Your task to perform on an android device: change text size in settings app Image 0: 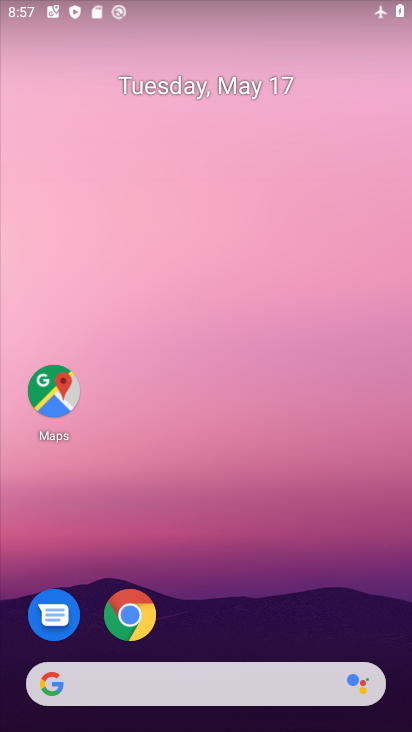
Step 0: drag from (242, 627) to (309, 118)
Your task to perform on an android device: change text size in settings app Image 1: 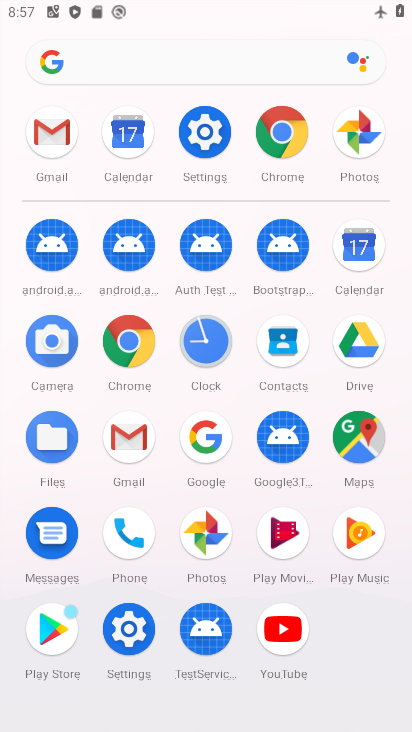
Step 1: click (282, 129)
Your task to perform on an android device: change text size in settings app Image 2: 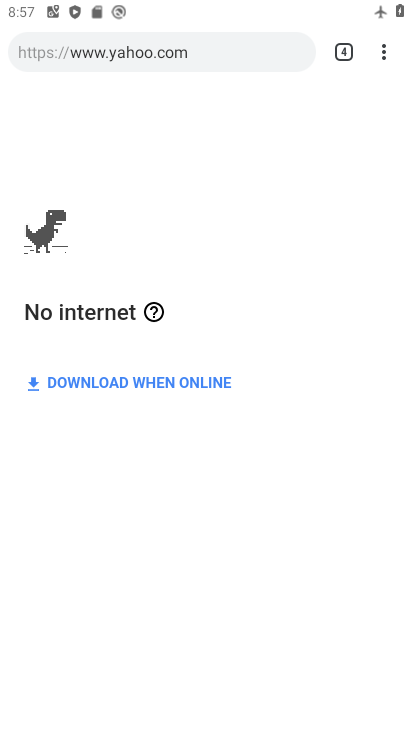
Step 2: click (372, 46)
Your task to perform on an android device: change text size in settings app Image 3: 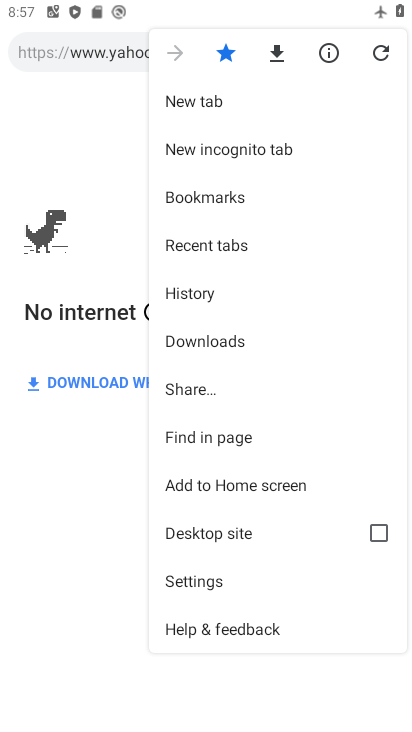
Step 3: click (247, 579)
Your task to perform on an android device: change text size in settings app Image 4: 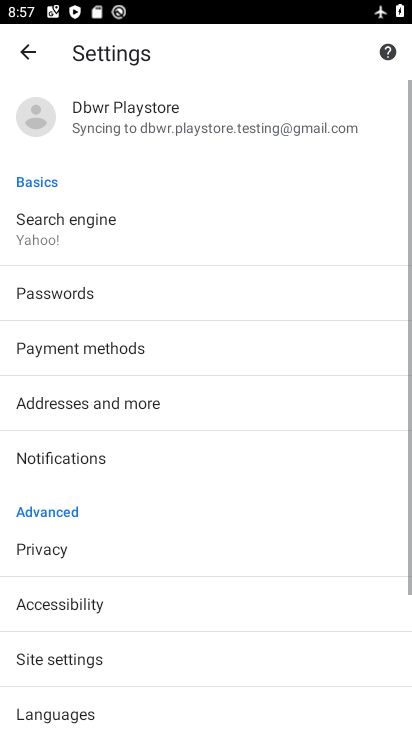
Step 4: drag from (215, 576) to (307, 262)
Your task to perform on an android device: change text size in settings app Image 5: 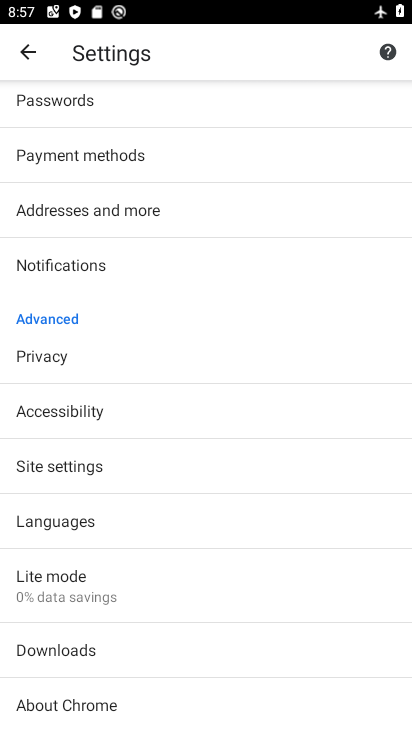
Step 5: drag from (151, 642) to (252, 273)
Your task to perform on an android device: change text size in settings app Image 6: 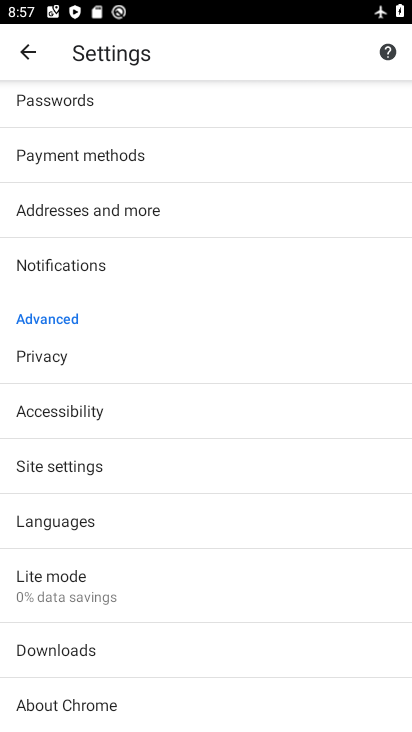
Step 6: drag from (231, 560) to (294, 161)
Your task to perform on an android device: change text size in settings app Image 7: 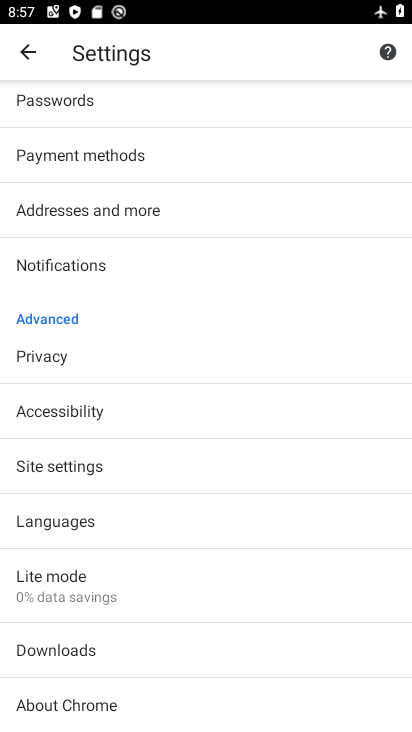
Step 7: drag from (200, 610) to (247, 254)
Your task to perform on an android device: change text size in settings app Image 8: 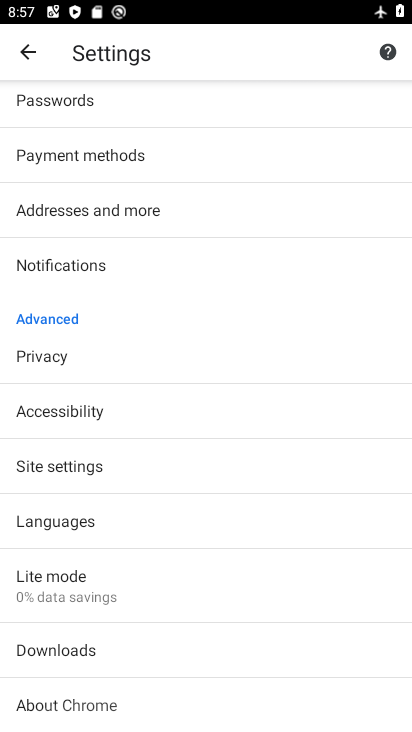
Step 8: drag from (256, 572) to (275, 247)
Your task to perform on an android device: change text size in settings app Image 9: 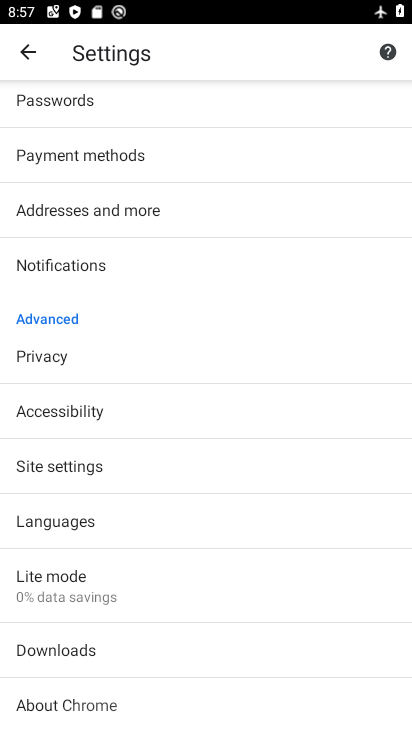
Step 9: drag from (152, 623) to (172, 57)
Your task to perform on an android device: change text size in settings app Image 10: 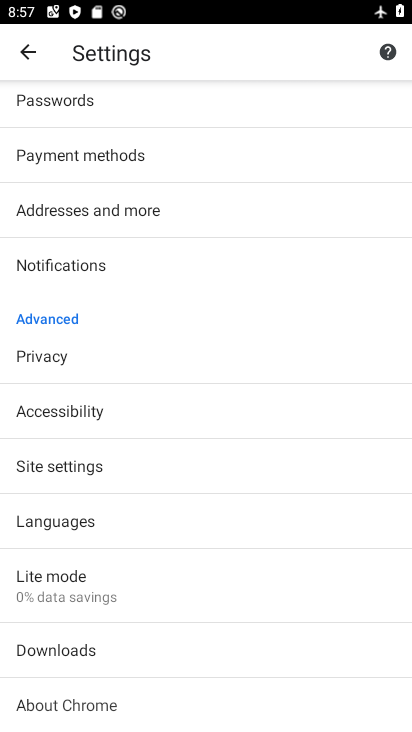
Step 10: drag from (228, 376) to (241, 222)
Your task to perform on an android device: change text size in settings app Image 11: 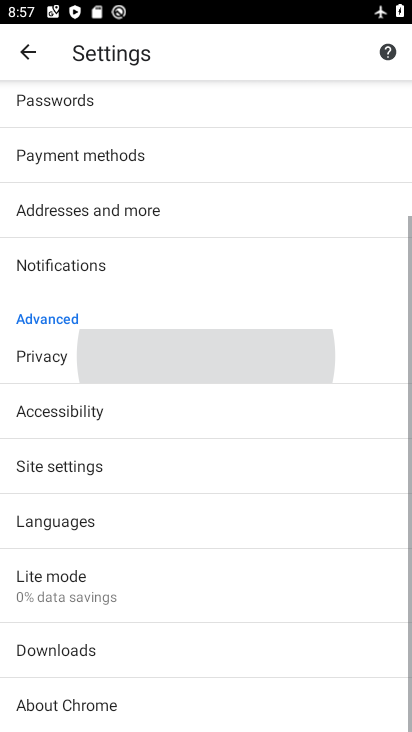
Step 11: drag from (234, 250) to (208, 518)
Your task to perform on an android device: change text size in settings app Image 12: 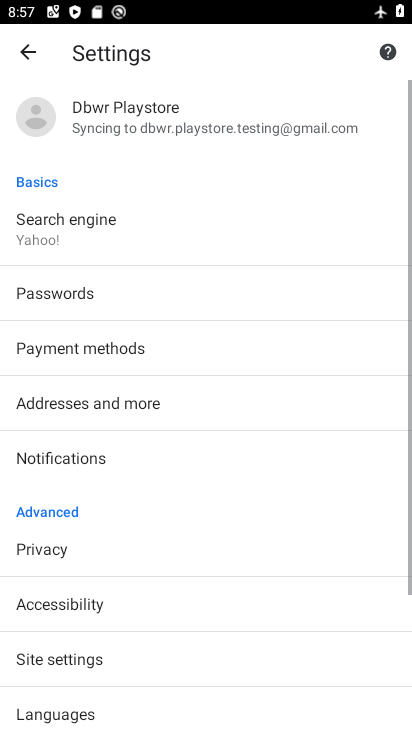
Step 12: click (211, 437)
Your task to perform on an android device: change text size in settings app Image 13: 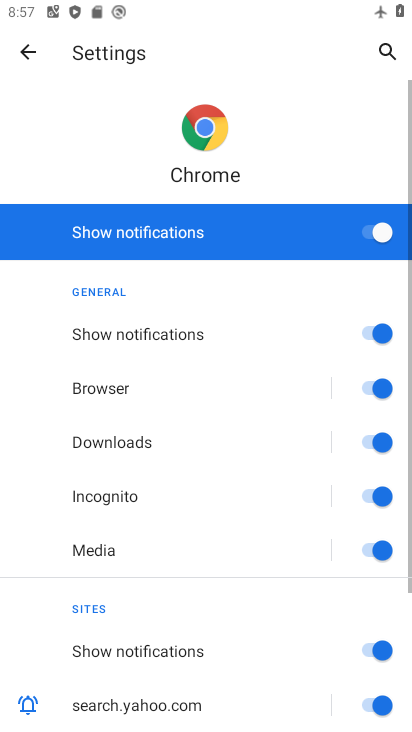
Step 13: click (21, 40)
Your task to perform on an android device: change text size in settings app Image 14: 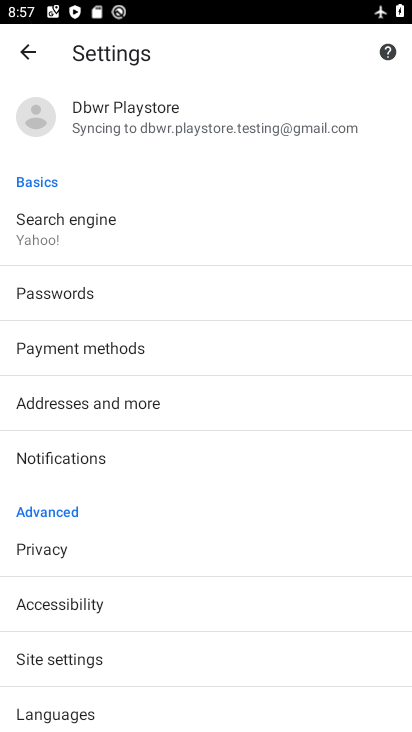
Step 14: drag from (141, 671) to (173, 590)
Your task to perform on an android device: change text size in settings app Image 15: 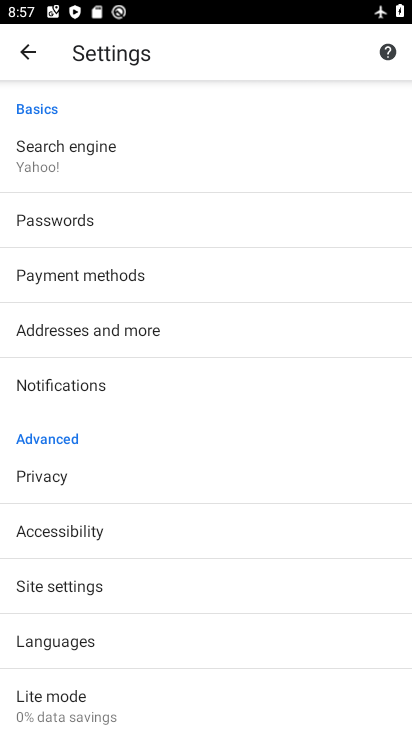
Step 15: click (155, 518)
Your task to perform on an android device: change text size in settings app Image 16: 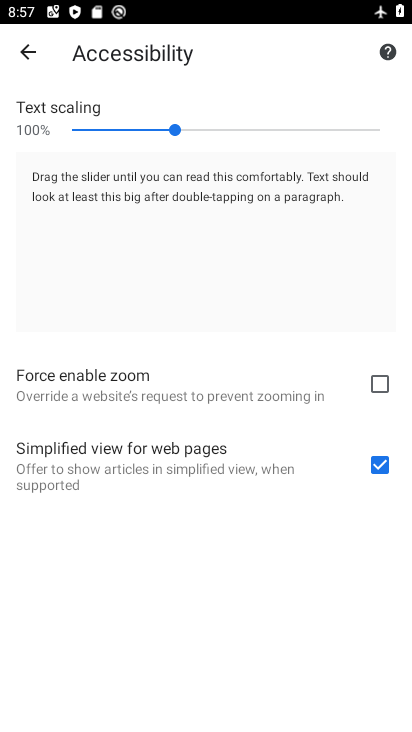
Step 16: click (33, 38)
Your task to perform on an android device: change text size in settings app Image 17: 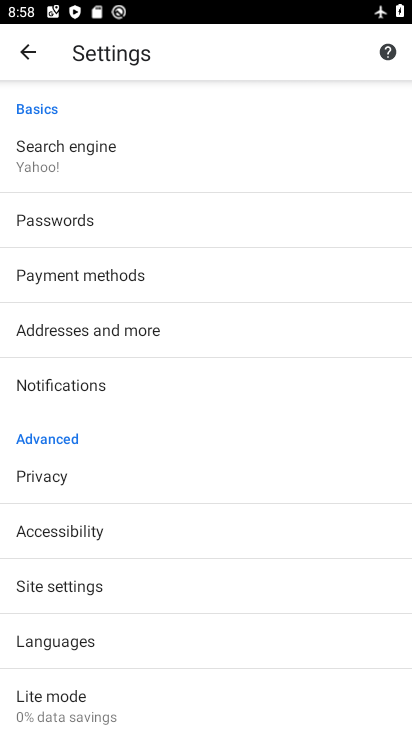
Step 17: drag from (134, 685) to (231, 154)
Your task to perform on an android device: change text size in settings app Image 18: 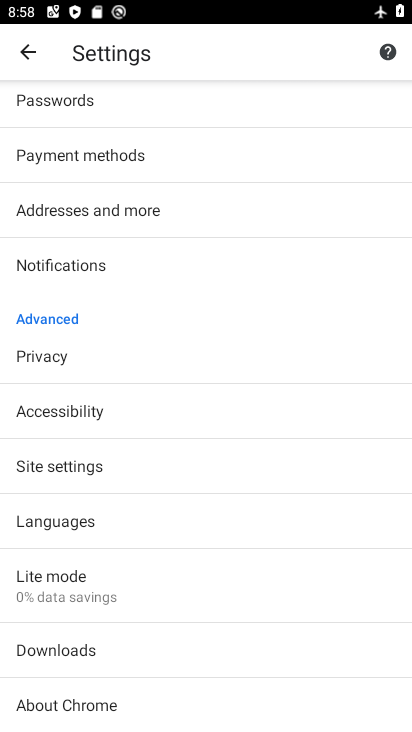
Step 18: click (126, 464)
Your task to perform on an android device: change text size in settings app Image 19: 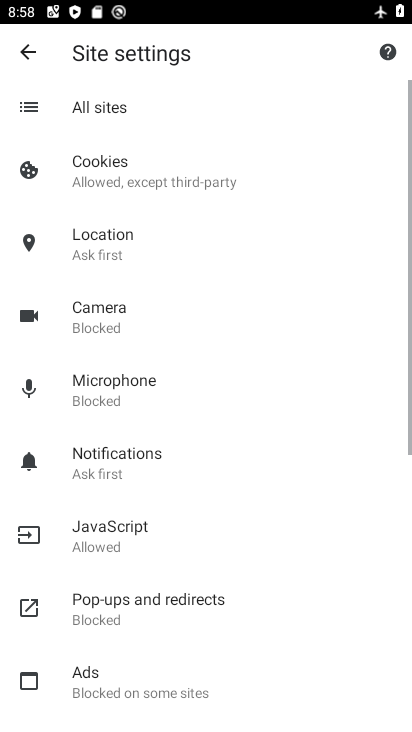
Step 19: click (37, 39)
Your task to perform on an android device: change text size in settings app Image 20: 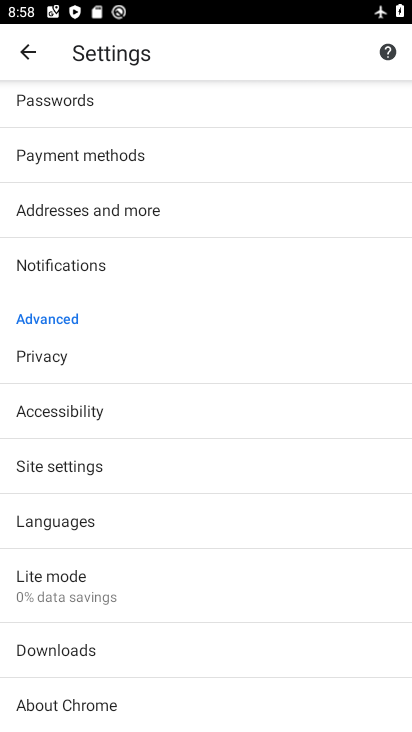
Step 20: drag from (181, 544) to (287, 204)
Your task to perform on an android device: change text size in settings app Image 21: 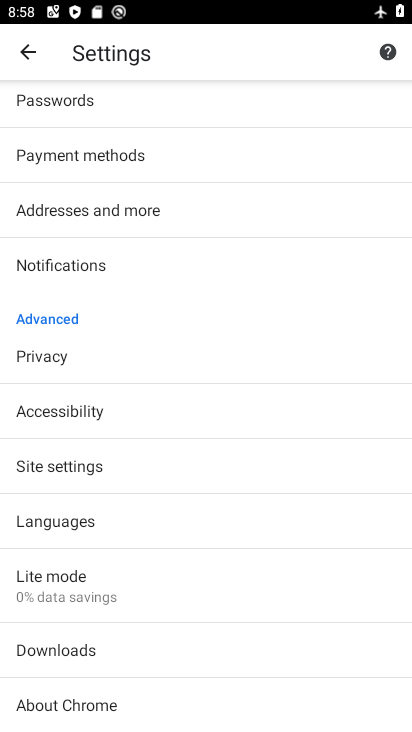
Step 21: click (122, 357)
Your task to perform on an android device: change text size in settings app Image 22: 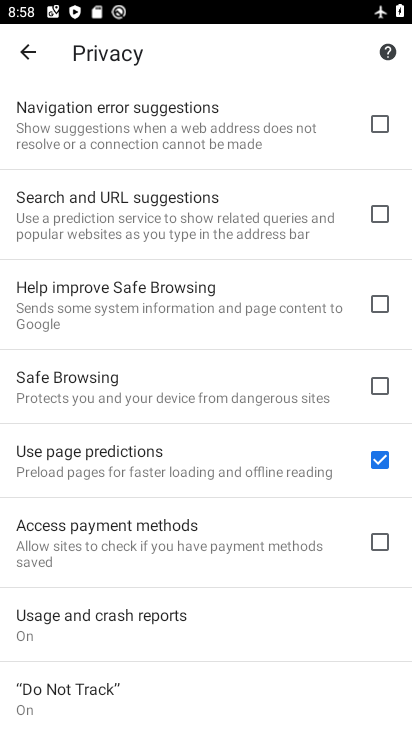
Step 22: click (35, 54)
Your task to perform on an android device: change text size in settings app Image 23: 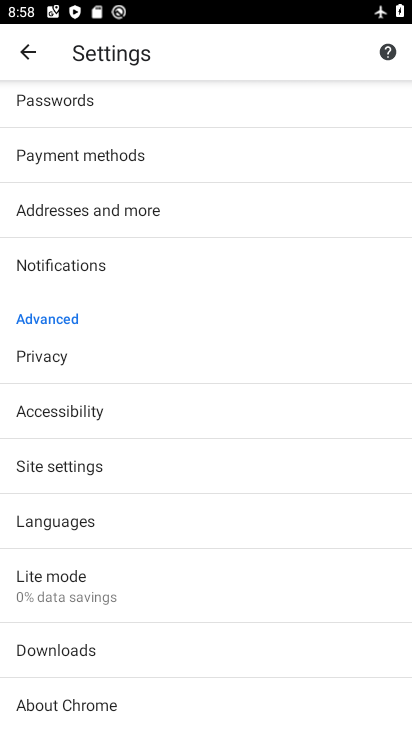
Step 23: click (128, 521)
Your task to perform on an android device: change text size in settings app Image 24: 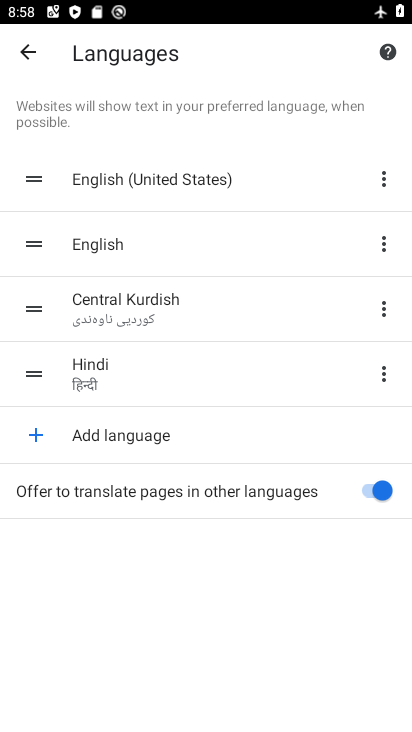
Step 24: click (32, 51)
Your task to perform on an android device: change text size in settings app Image 25: 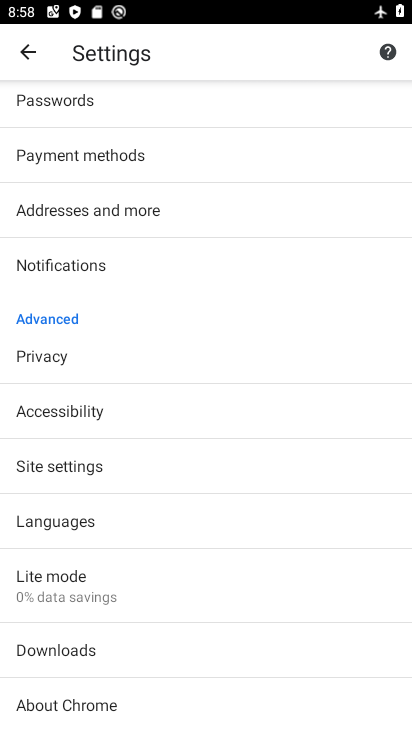
Step 25: click (134, 615)
Your task to perform on an android device: change text size in settings app Image 26: 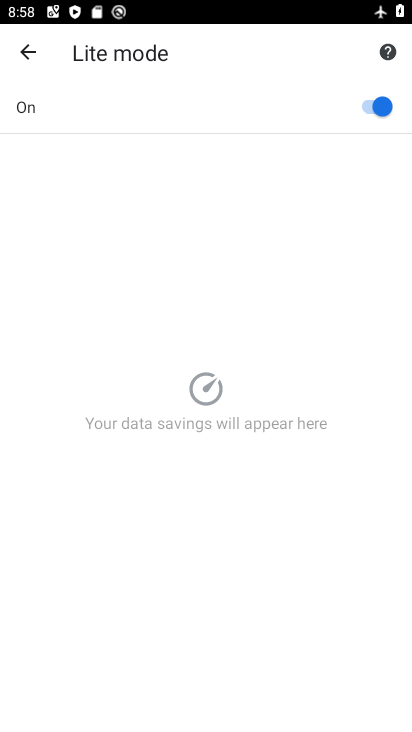
Step 26: click (38, 51)
Your task to perform on an android device: change text size in settings app Image 27: 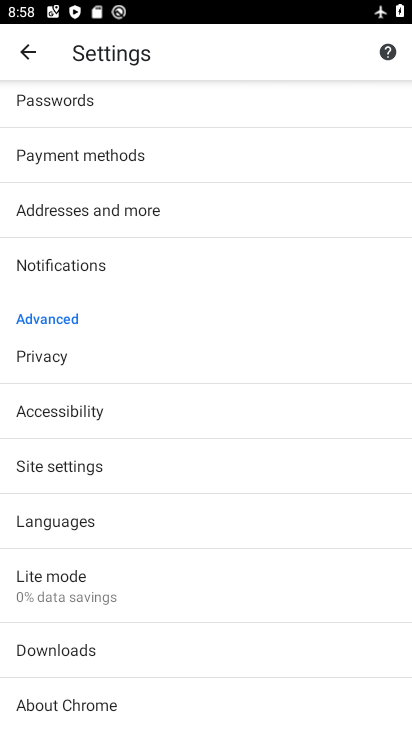
Step 27: click (119, 405)
Your task to perform on an android device: change text size in settings app Image 28: 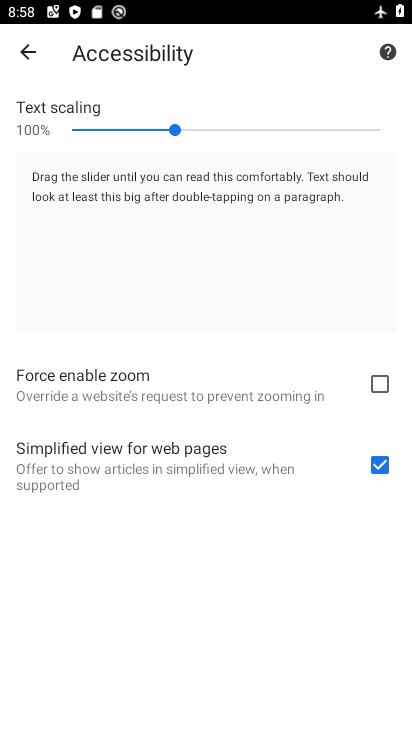
Step 28: click (17, 40)
Your task to perform on an android device: change text size in settings app Image 29: 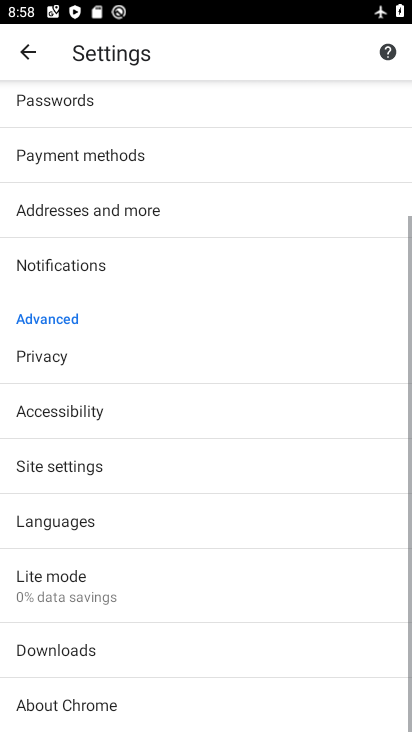
Step 29: drag from (232, 160) to (291, 13)
Your task to perform on an android device: change text size in settings app Image 30: 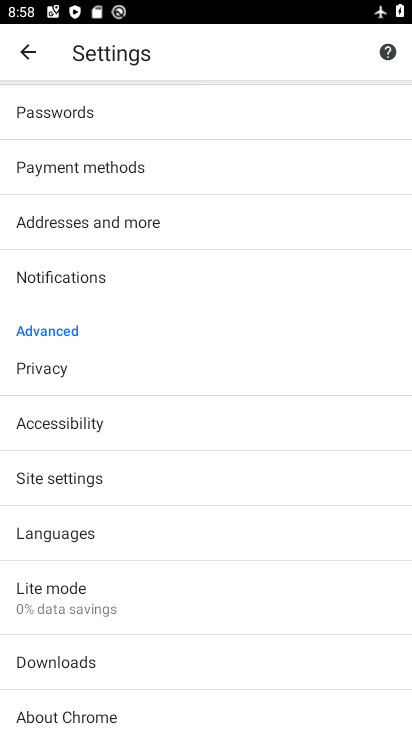
Step 30: drag from (154, 672) to (256, 212)
Your task to perform on an android device: change text size in settings app Image 31: 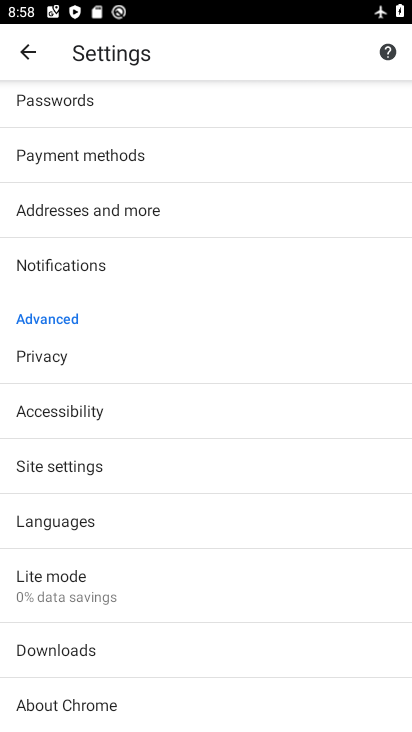
Step 31: press home button
Your task to perform on an android device: change text size in settings app Image 32: 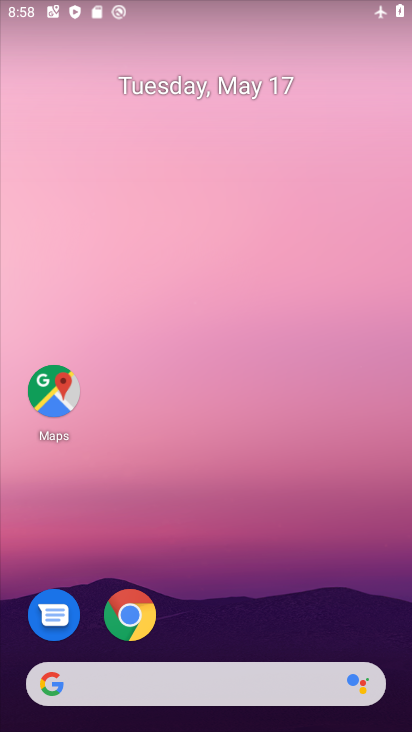
Step 32: drag from (233, 621) to (266, 123)
Your task to perform on an android device: change text size in settings app Image 33: 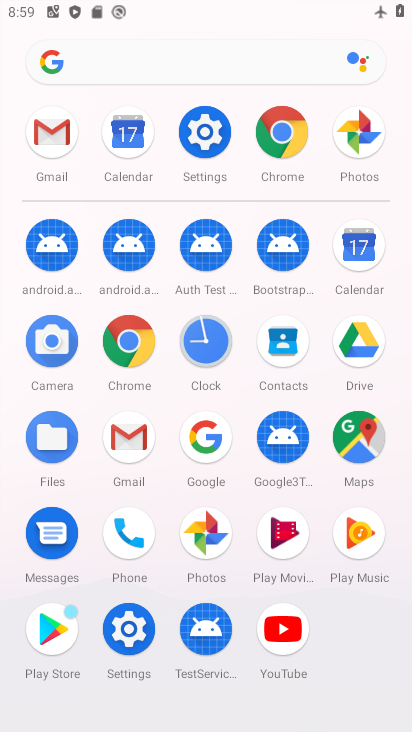
Step 33: click (198, 132)
Your task to perform on an android device: change text size in settings app Image 34: 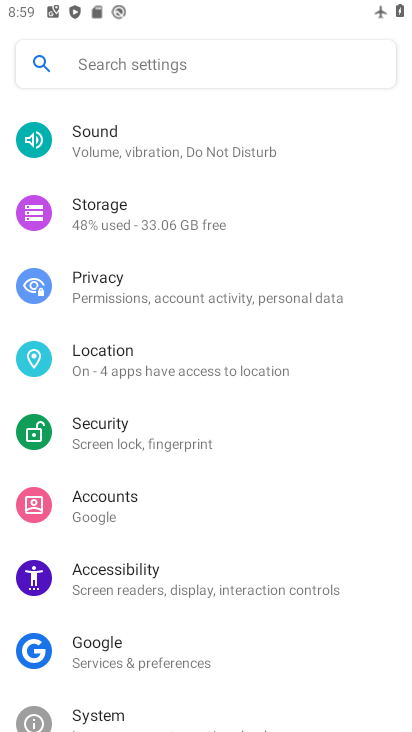
Step 34: drag from (182, 682) to (289, 174)
Your task to perform on an android device: change text size in settings app Image 35: 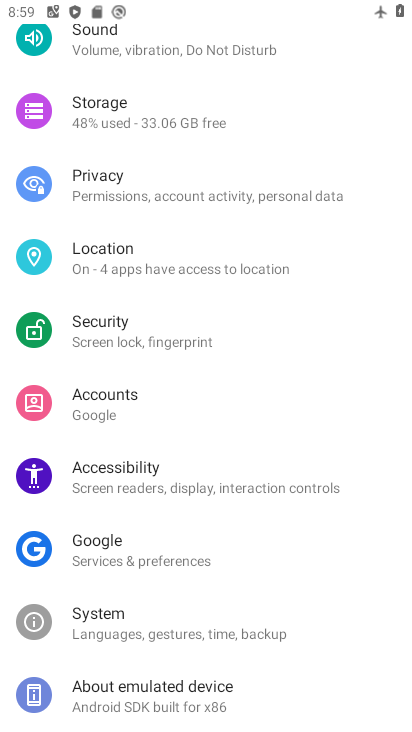
Step 35: click (182, 472)
Your task to perform on an android device: change text size in settings app Image 36: 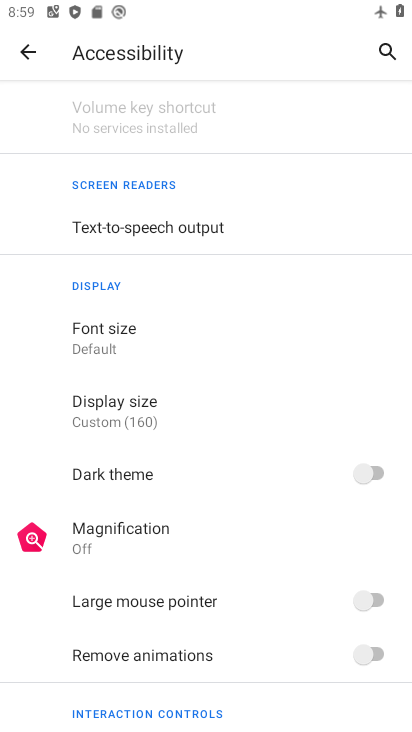
Step 36: click (133, 332)
Your task to perform on an android device: change text size in settings app Image 37: 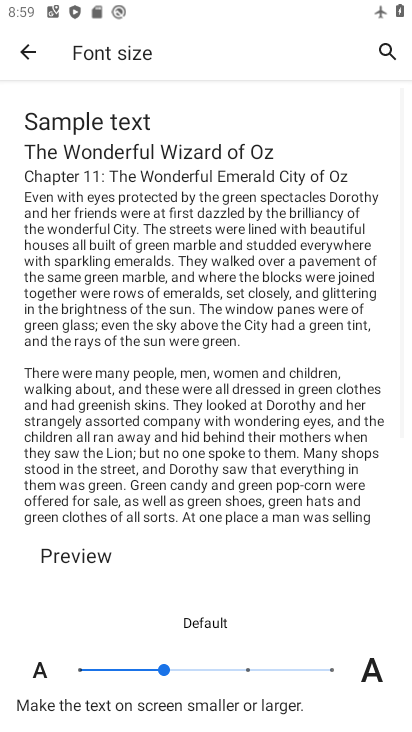
Step 37: click (232, 674)
Your task to perform on an android device: change text size in settings app Image 38: 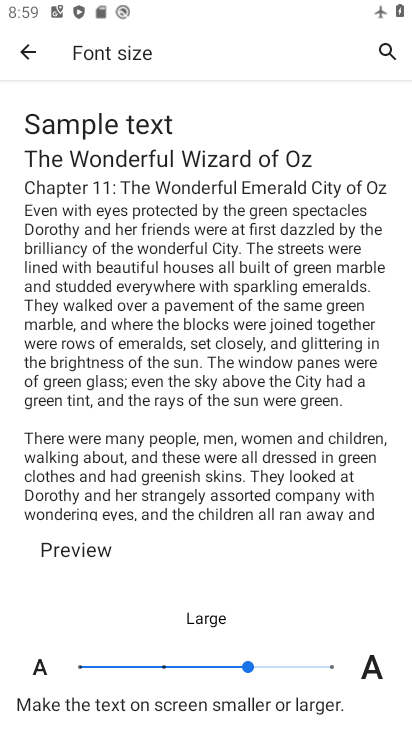
Step 38: task complete